Your task to perform on an android device: Search for Mexican restaurants on Maps Image 0: 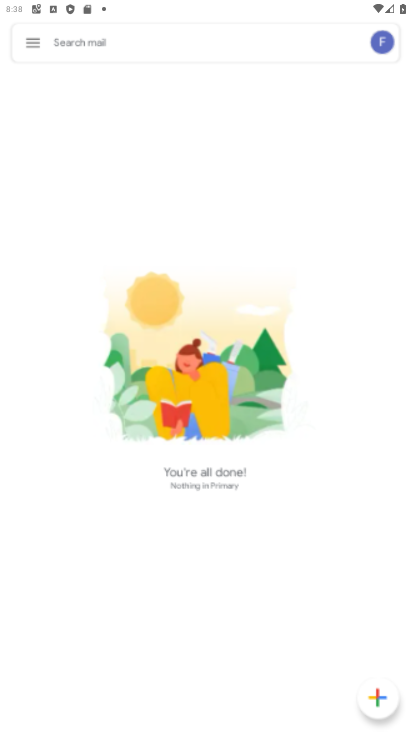
Step 0: drag from (377, 646) to (308, 43)
Your task to perform on an android device: Search for Mexican restaurants on Maps Image 1: 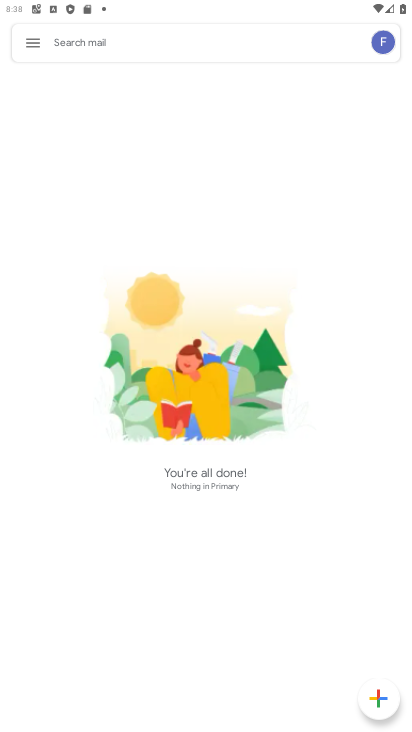
Step 1: press home button
Your task to perform on an android device: Search for Mexican restaurants on Maps Image 2: 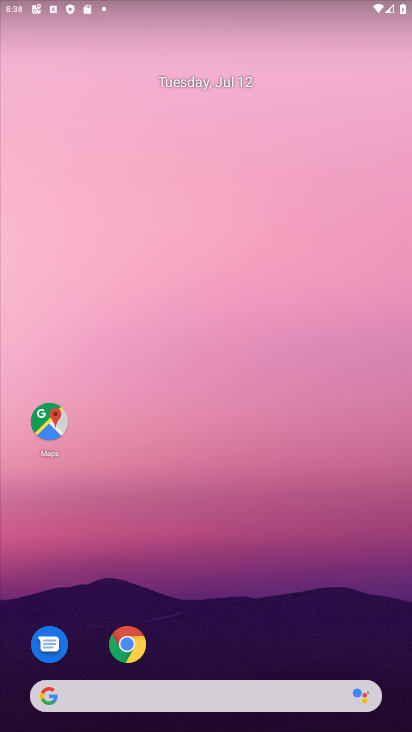
Step 2: click (42, 416)
Your task to perform on an android device: Search for Mexican restaurants on Maps Image 3: 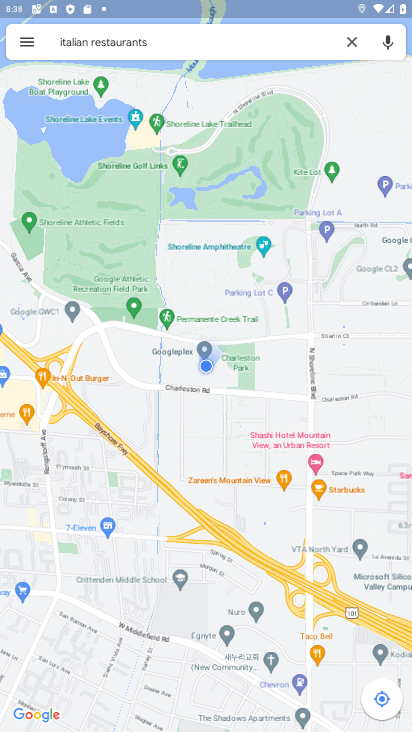
Step 3: click (351, 39)
Your task to perform on an android device: Search for Mexican restaurants on Maps Image 4: 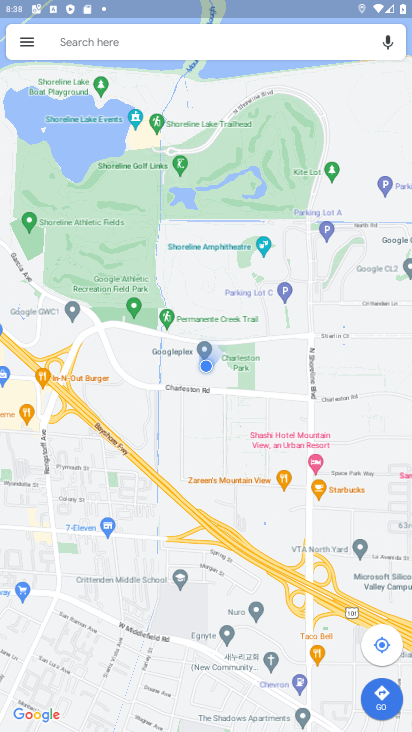
Step 4: click (107, 37)
Your task to perform on an android device: Search for Mexican restaurants on Maps Image 5: 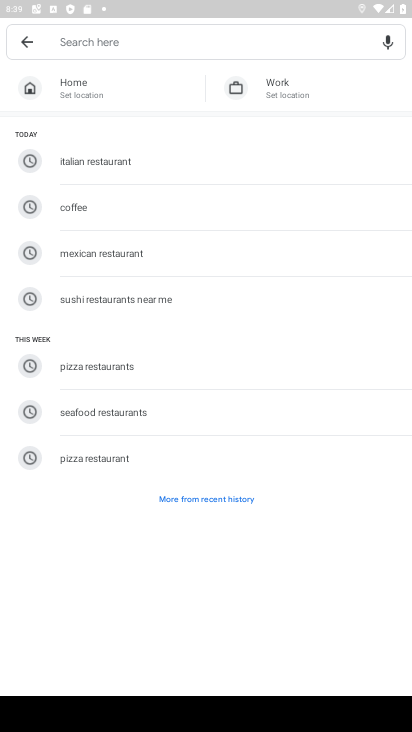
Step 5: type "mexican restaurants"
Your task to perform on an android device: Search for Mexican restaurants on Maps Image 6: 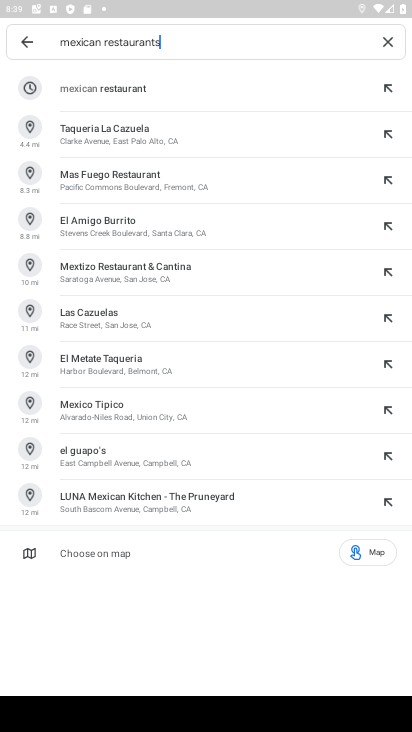
Step 6: click (82, 89)
Your task to perform on an android device: Search for Mexican restaurants on Maps Image 7: 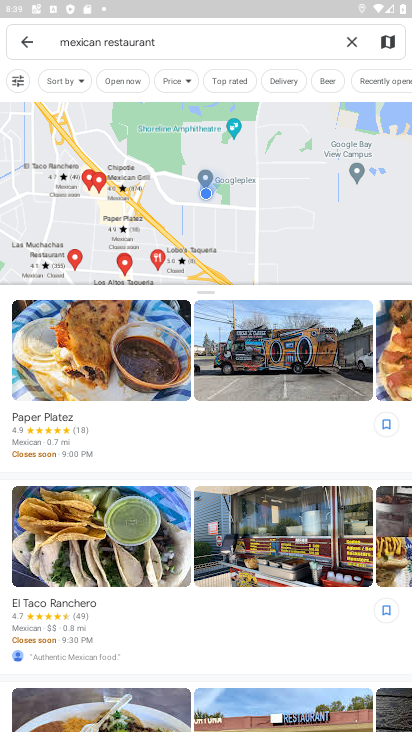
Step 7: task complete